Your task to perform on an android device: check storage Image 0: 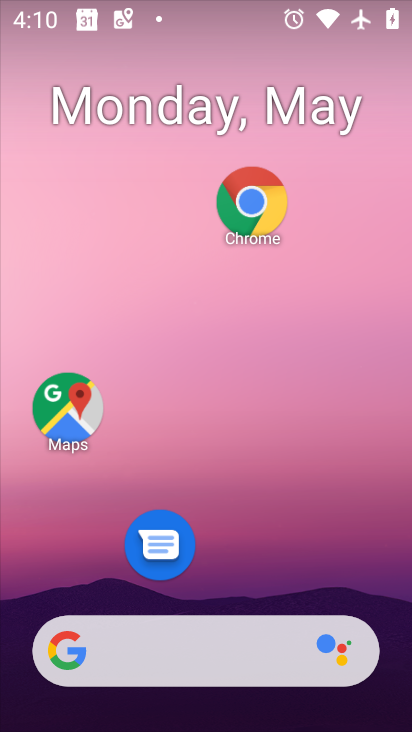
Step 0: drag from (217, 564) to (248, 188)
Your task to perform on an android device: check storage Image 1: 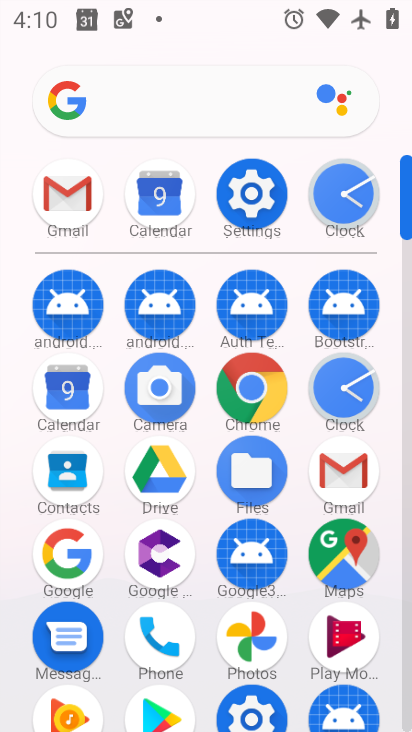
Step 1: click (252, 221)
Your task to perform on an android device: check storage Image 2: 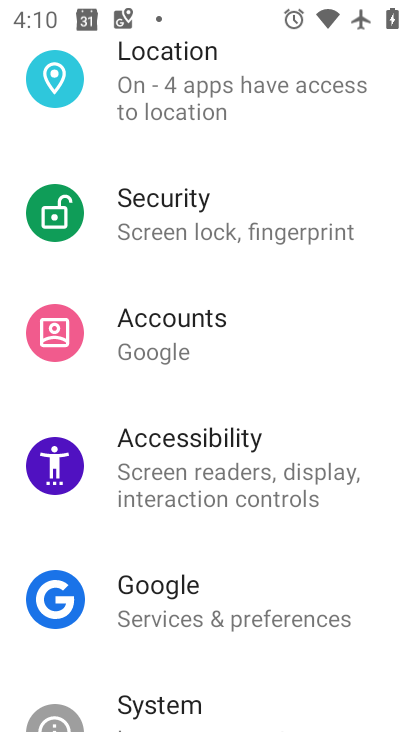
Step 2: drag from (221, 223) to (236, 545)
Your task to perform on an android device: check storage Image 3: 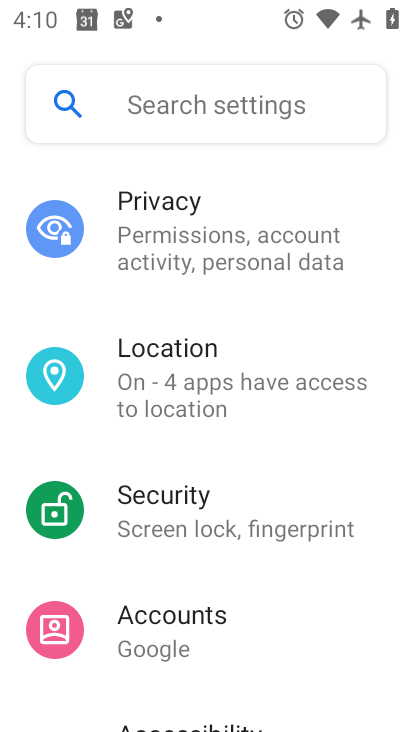
Step 3: drag from (236, 250) to (278, 367)
Your task to perform on an android device: check storage Image 4: 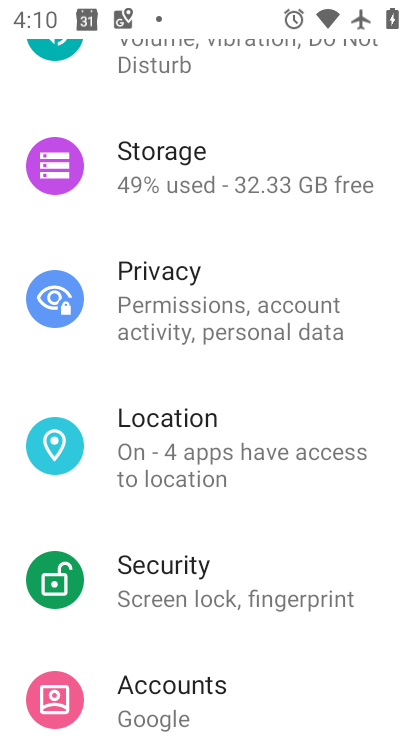
Step 4: click (177, 186)
Your task to perform on an android device: check storage Image 5: 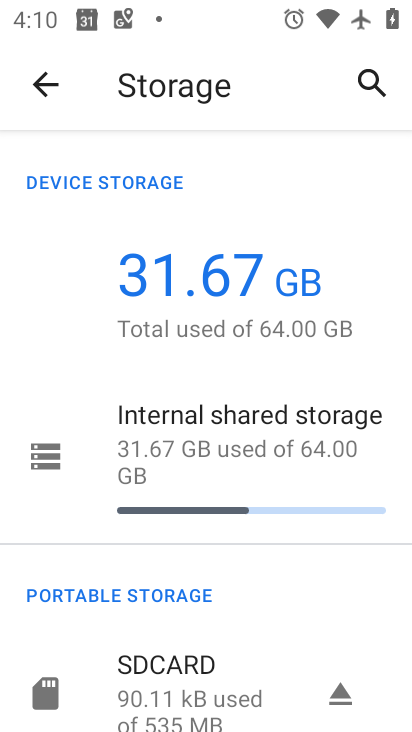
Step 5: drag from (210, 615) to (262, 248)
Your task to perform on an android device: check storage Image 6: 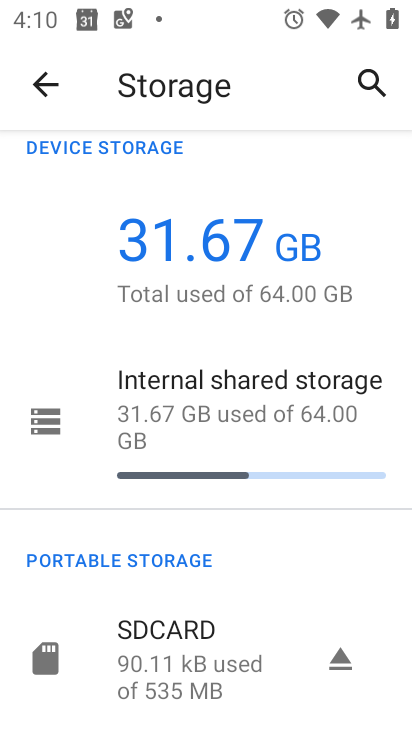
Step 6: click (206, 404)
Your task to perform on an android device: check storage Image 7: 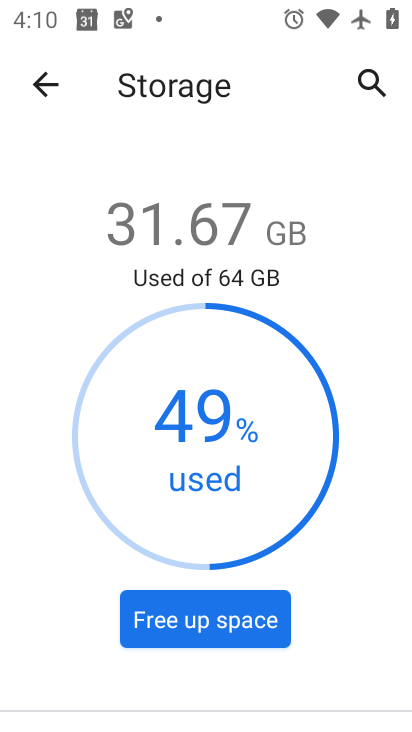
Step 7: task complete